Your task to perform on an android device: turn on airplane mode Image 0: 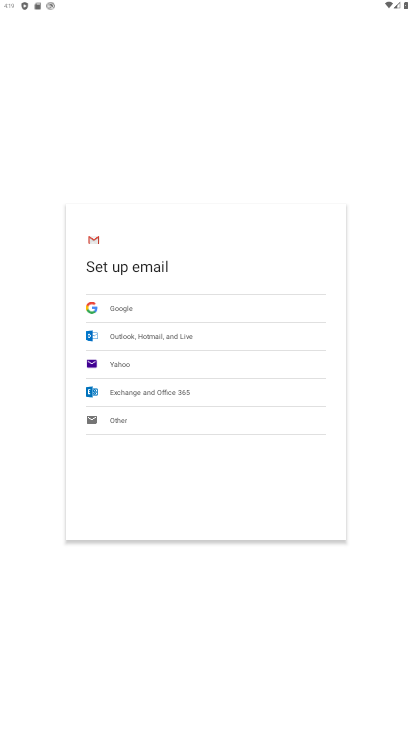
Step 0: press home button
Your task to perform on an android device: turn on airplane mode Image 1: 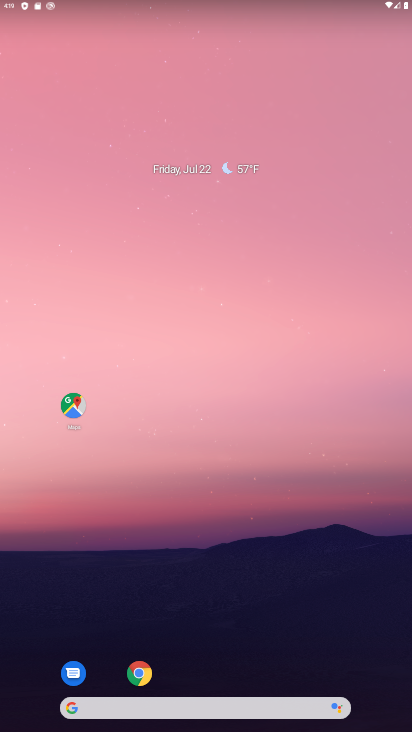
Step 1: drag from (313, 4) to (285, 424)
Your task to perform on an android device: turn on airplane mode Image 2: 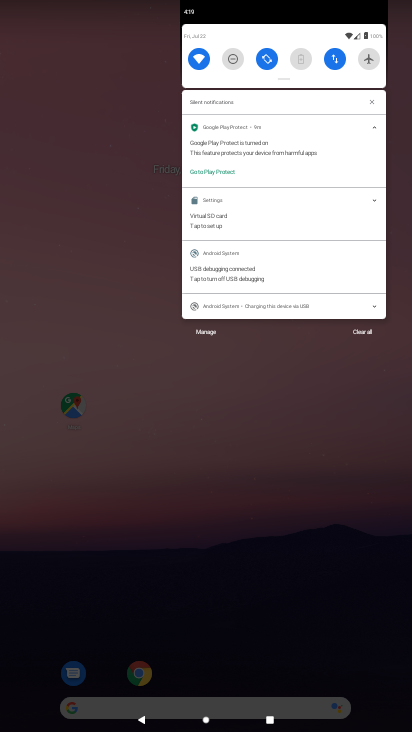
Step 2: click (367, 57)
Your task to perform on an android device: turn on airplane mode Image 3: 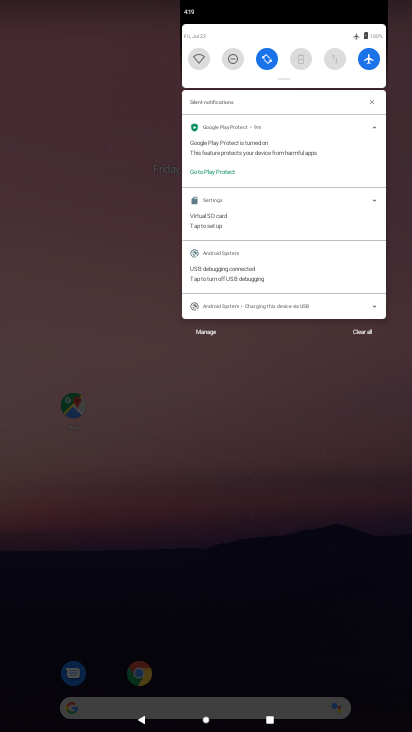
Step 3: task complete